Your task to perform on an android device: Check the news Image 0: 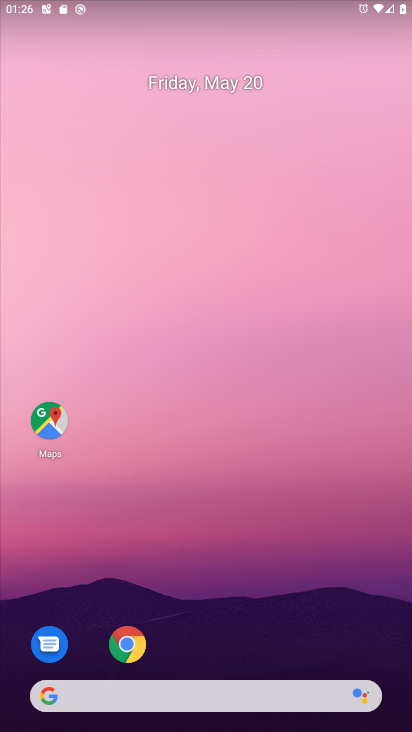
Step 0: drag from (174, 633) to (115, 174)
Your task to perform on an android device: Check the news Image 1: 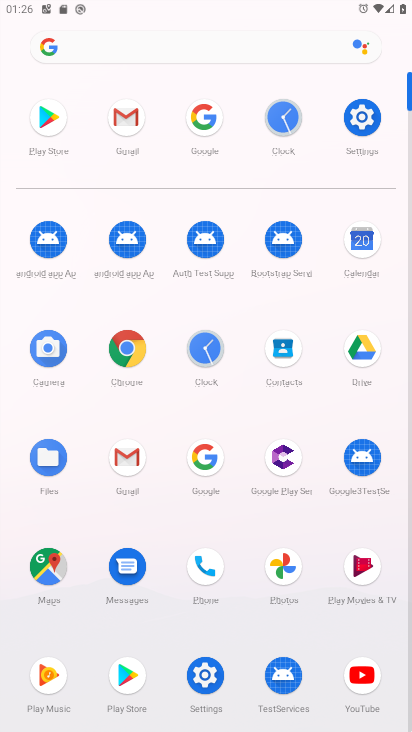
Step 1: click (213, 462)
Your task to perform on an android device: Check the news Image 2: 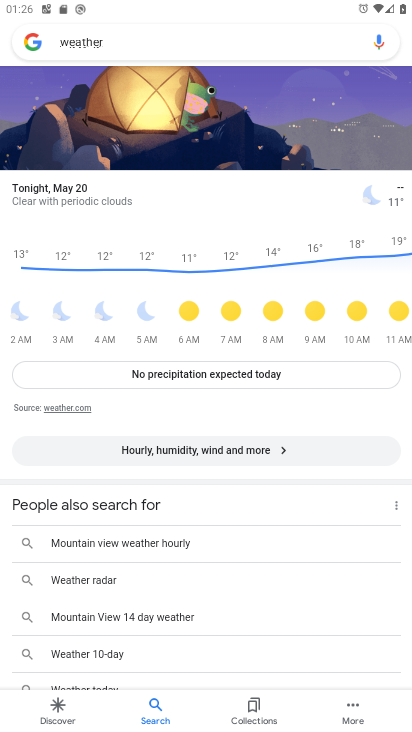
Step 2: click (135, 46)
Your task to perform on an android device: Check the news Image 3: 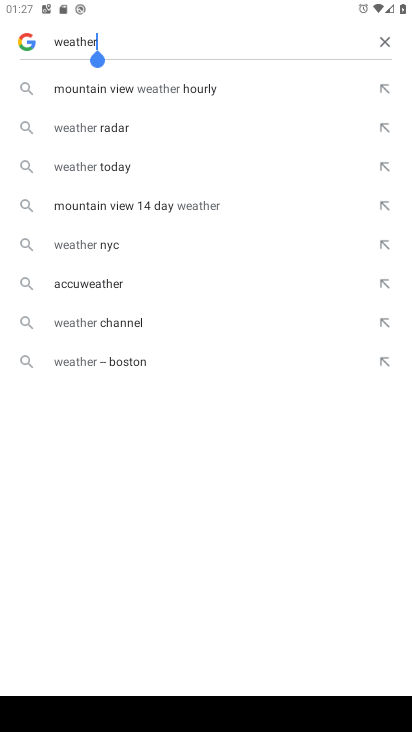
Step 3: click (383, 37)
Your task to perform on an android device: Check the news Image 4: 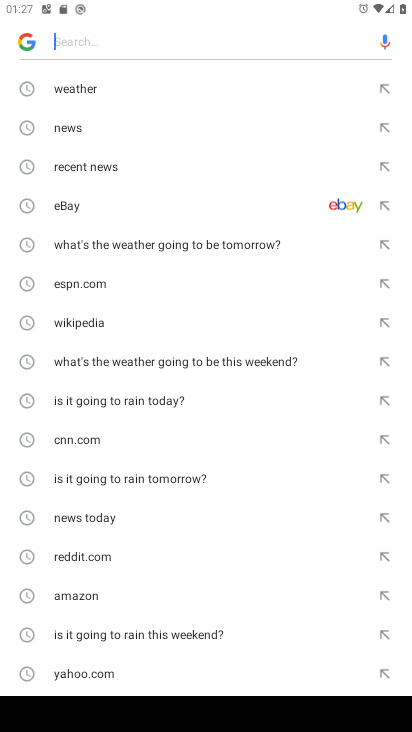
Step 4: click (73, 129)
Your task to perform on an android device: Check the news Image 5: 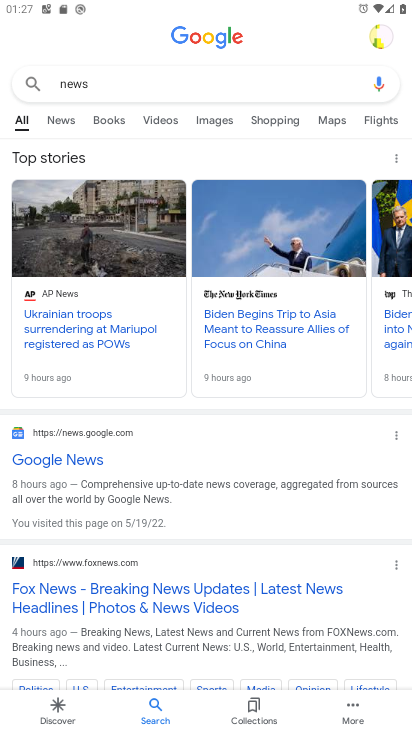
Step 5: task complete